Your task to perform on an android device: toggle notifications settings in the gmail app Image 0: 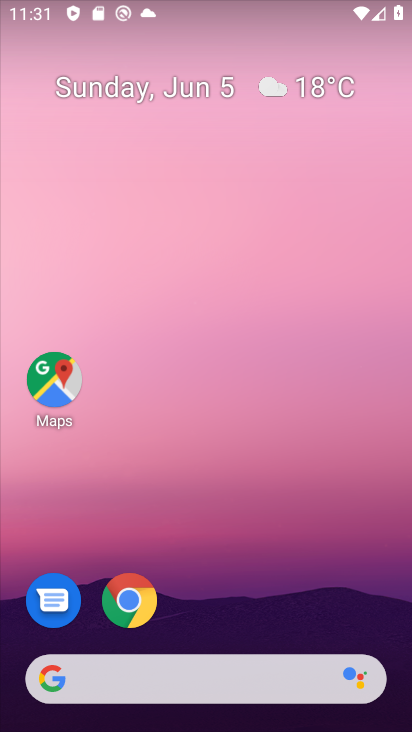
Step 0: drag from (156, 724) to (207, 54)
Your task to perform on an android device: toggle notifications settings in the gmail app Image 1: 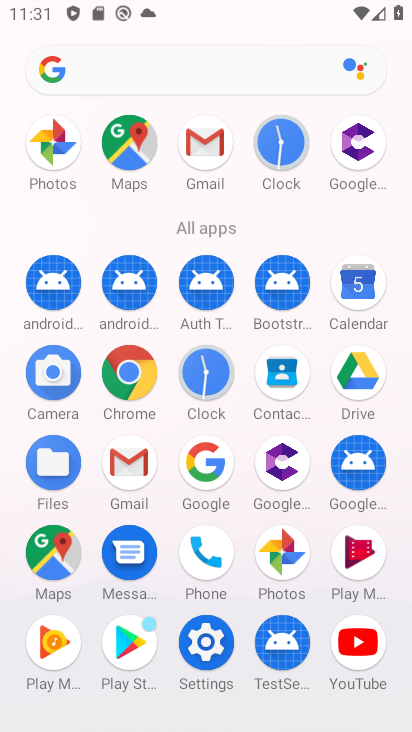
Step 1: click (128, 476)
Your task to perform on an android device: toggle notifications settings in the gmail app Image 2: 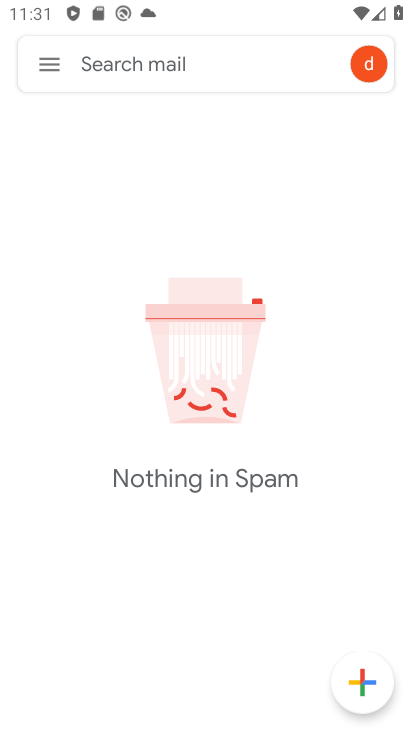
Step 2: click (52, 66)
Your task to perform on an android device: toggle notifications settings in the gmail app Image 3: 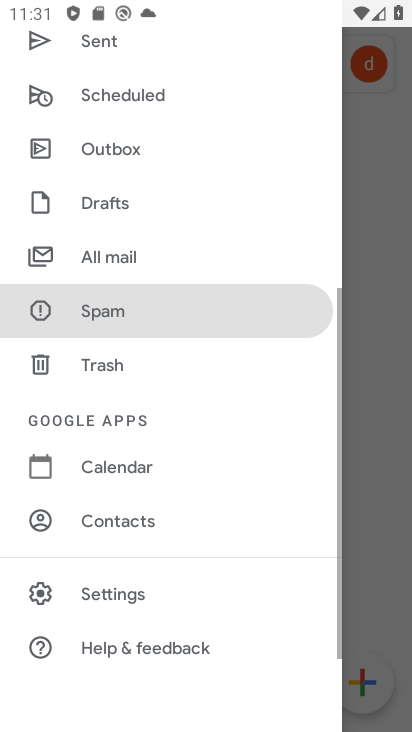
Step 3: click (106, 592)
Your task to perform on an android device: toggle notifications settings in the gmail app Image 4: 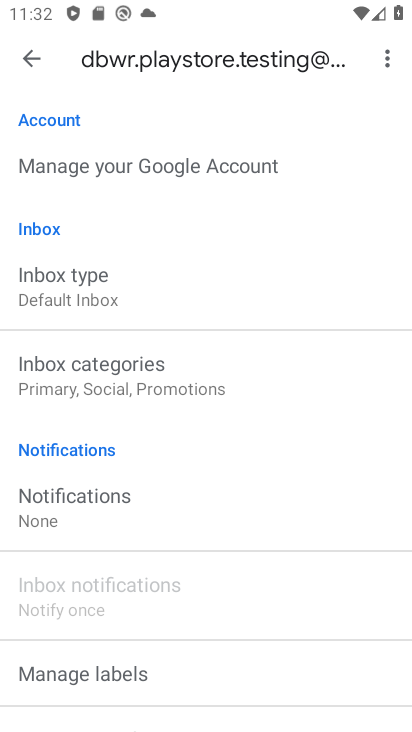
Step 4: click (144, 520)
Your task to perform on an android device: toggle notifications settings in the gmail app Image 5: 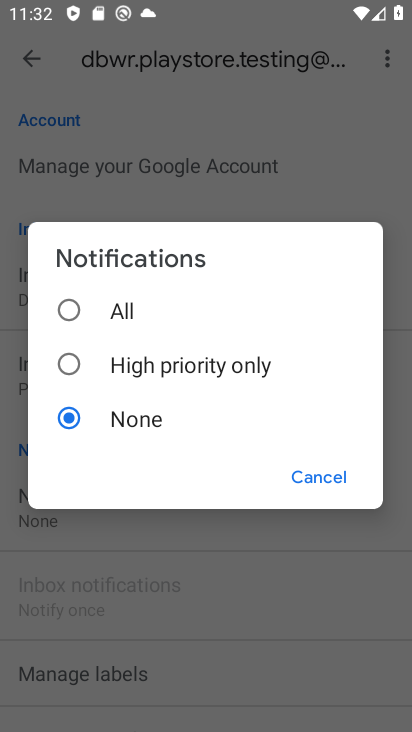
Step 5: click (105, 308)
Your task to perform on an android device: toggle notifications settings in the gmail app Image 6: 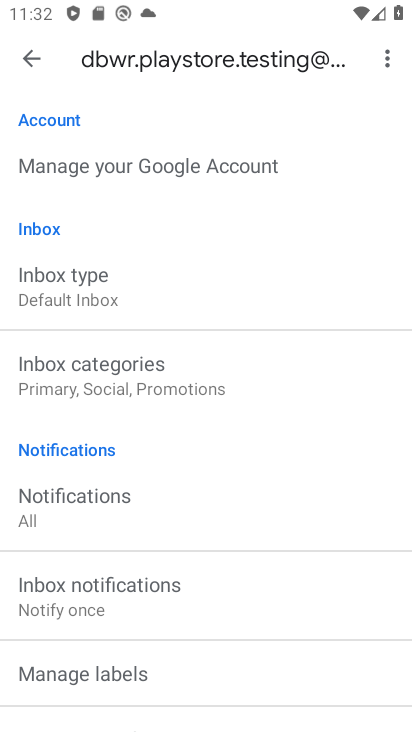
Step 6: task complete